Your task to perform on an android device: open app "ColorNote Notepad Notes" Image 0: 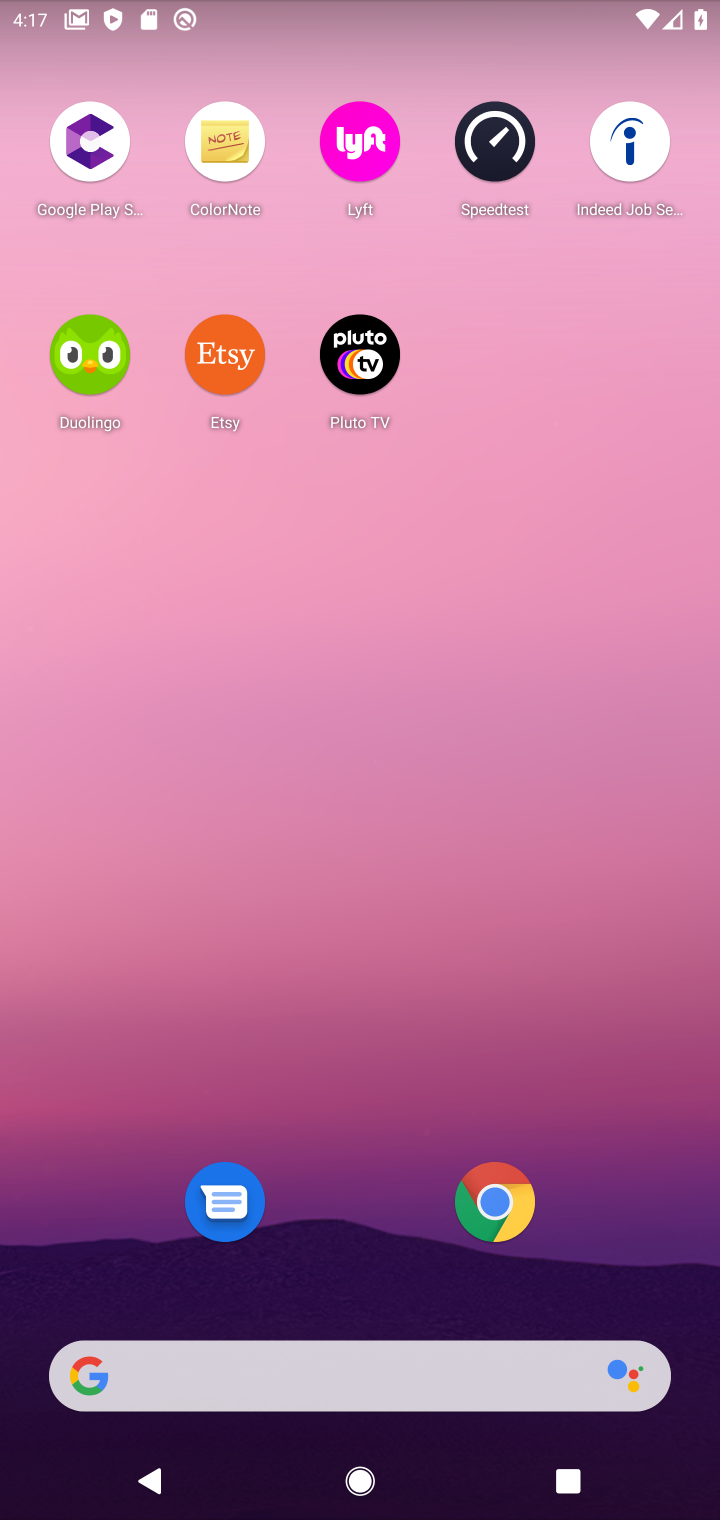
Step 0: drag from (331, 1197) to (441, 60)
Your task to perform on an android device: open app "ColorNote Notepad Notes" Image 1: 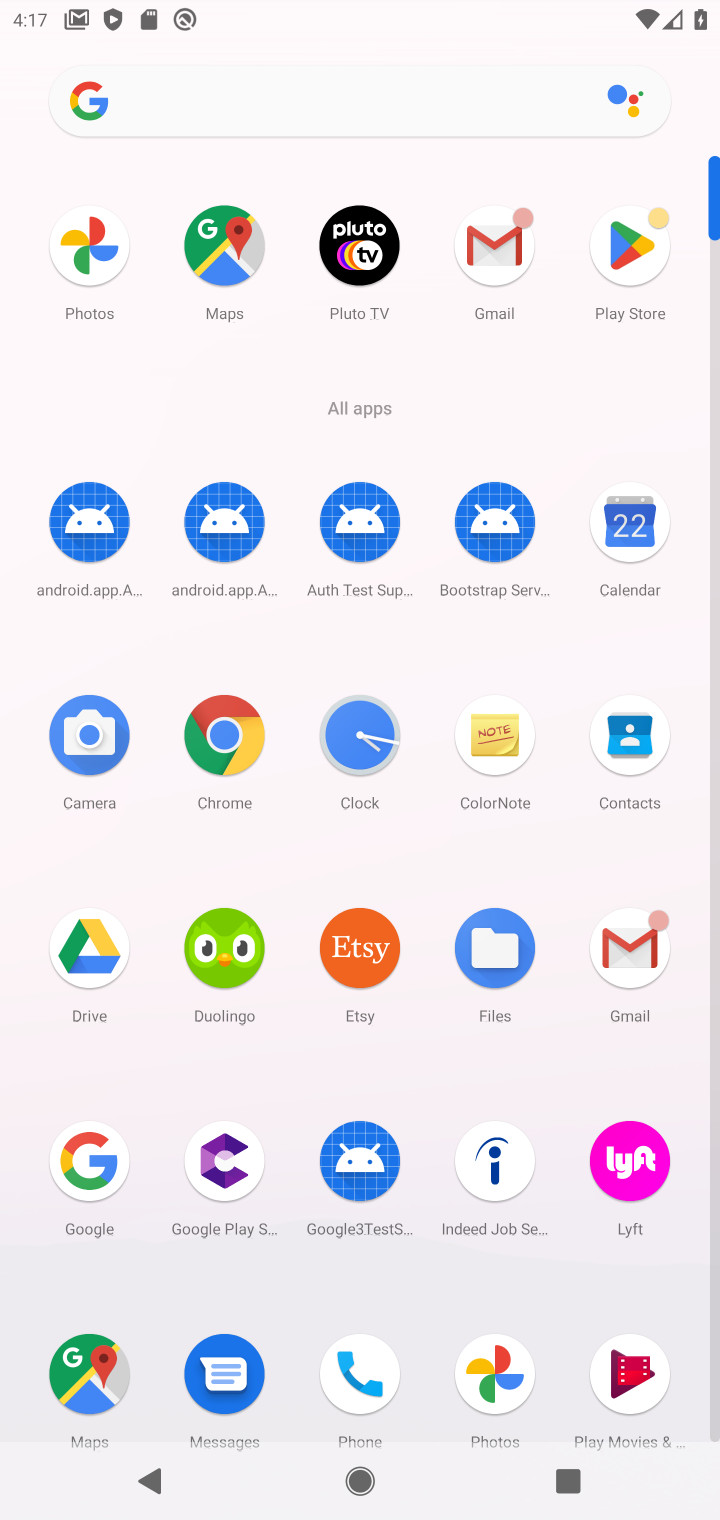
Step 1: click (636, 260)
Your task to perform on an android device: open app "ColorNote Notepad Notes" Image 2: 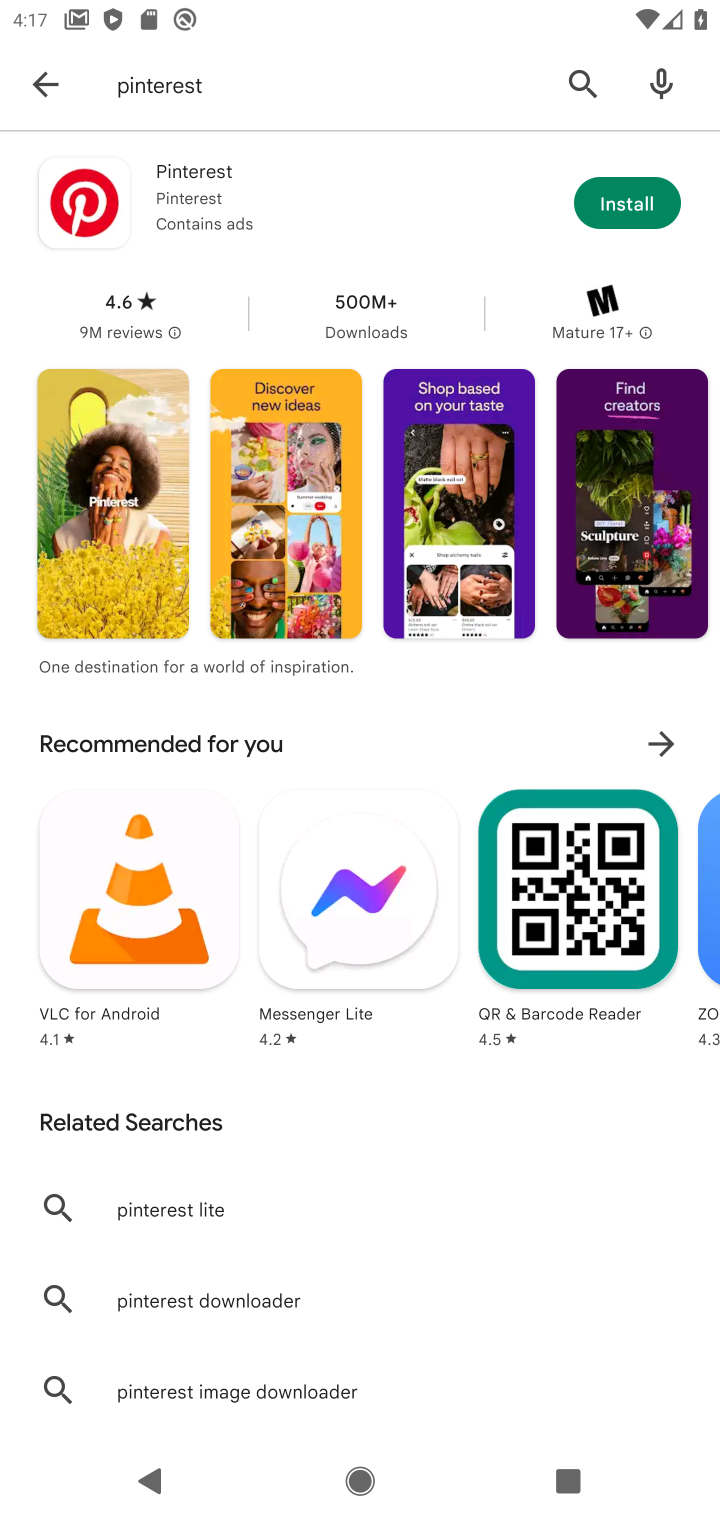
Step 2: click (249, 39)
Your task to perform on an android device: open app "ColorNote Notepad Notes" Image 3: 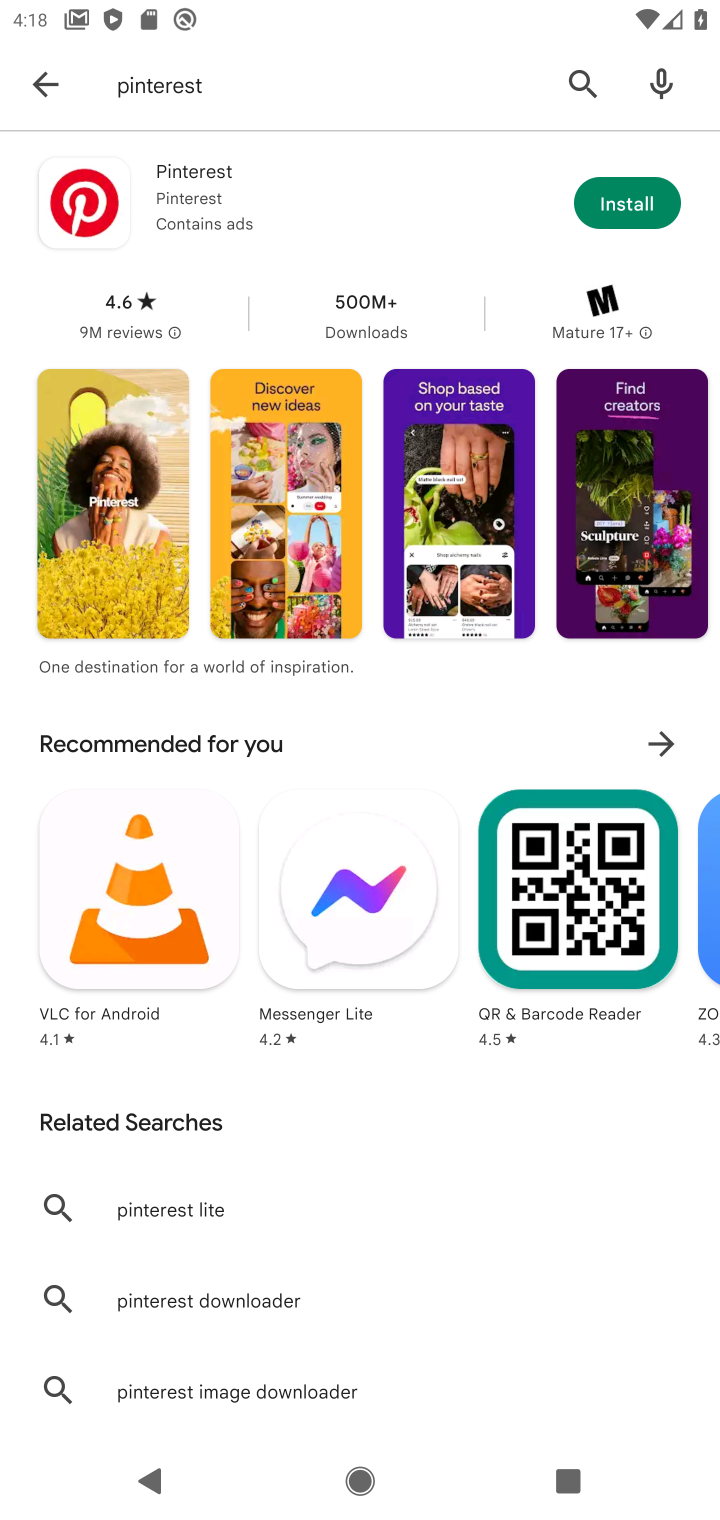
Step 3: click (234, 83)
Your task to perform on an android device: open app "ColorNote Notepad Notes" Image 4: 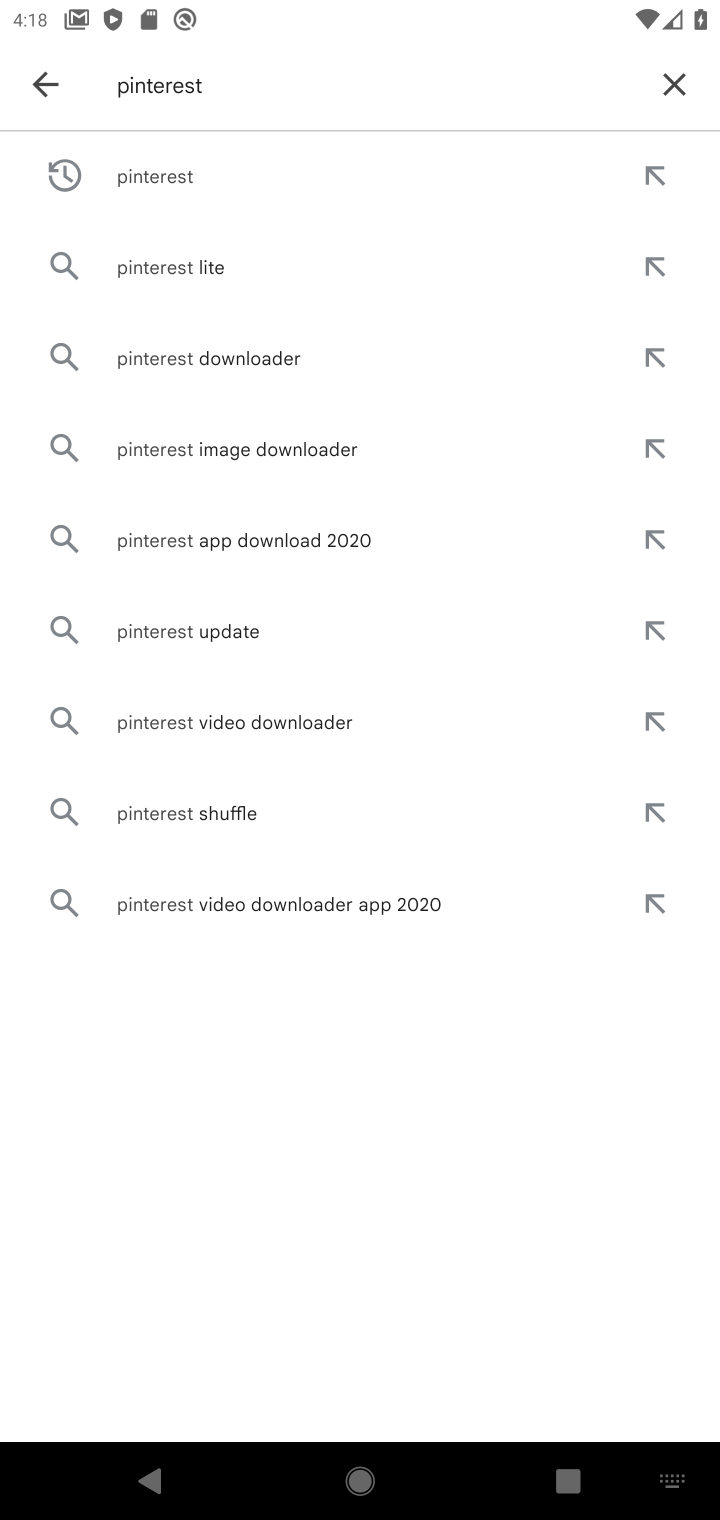
Step 4: click (684, 77)
Your task to perform on an android device: open app "ColorNote Notepad Notes" Image 5: 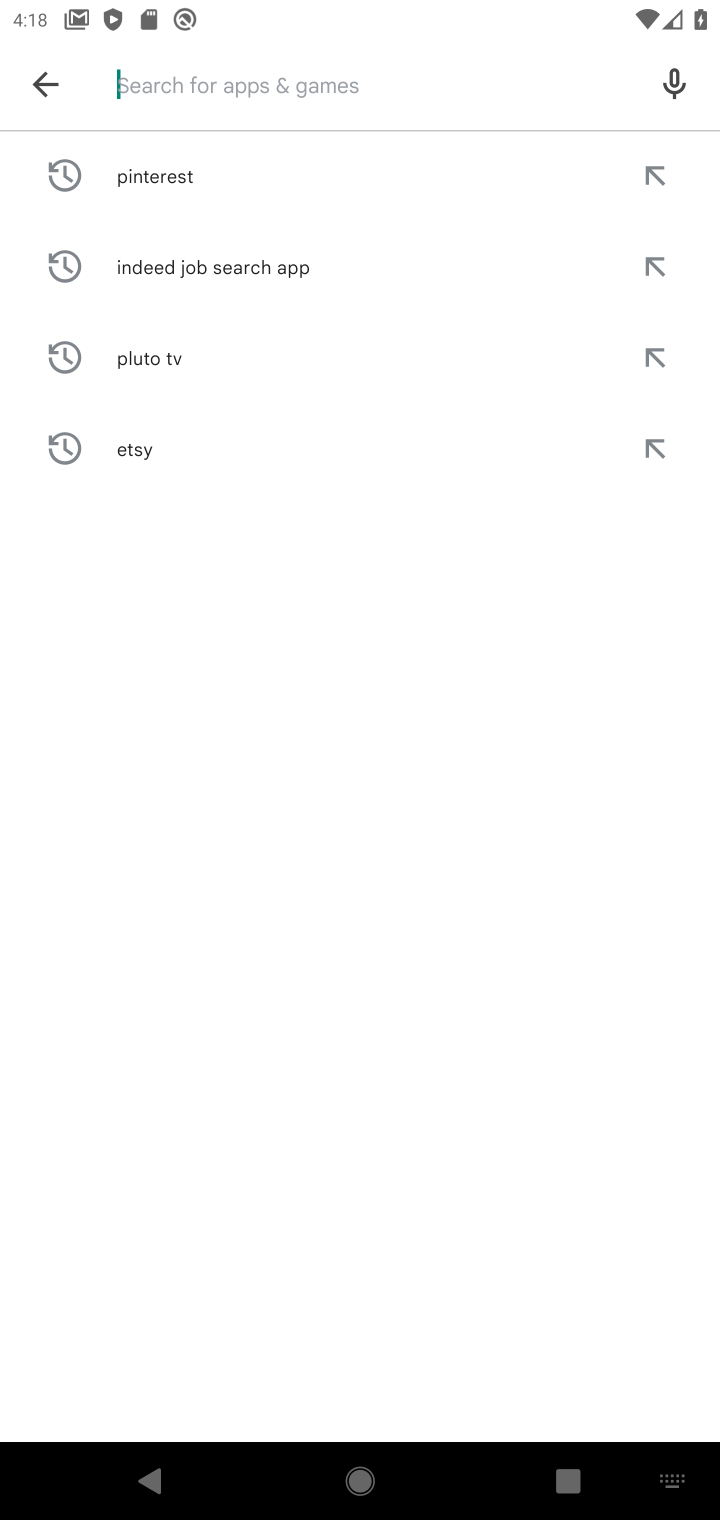
Step 5: type "colornote notepad"
Your task to perform on an android device: open app "ColorNote Notepad Notes" Image 6: 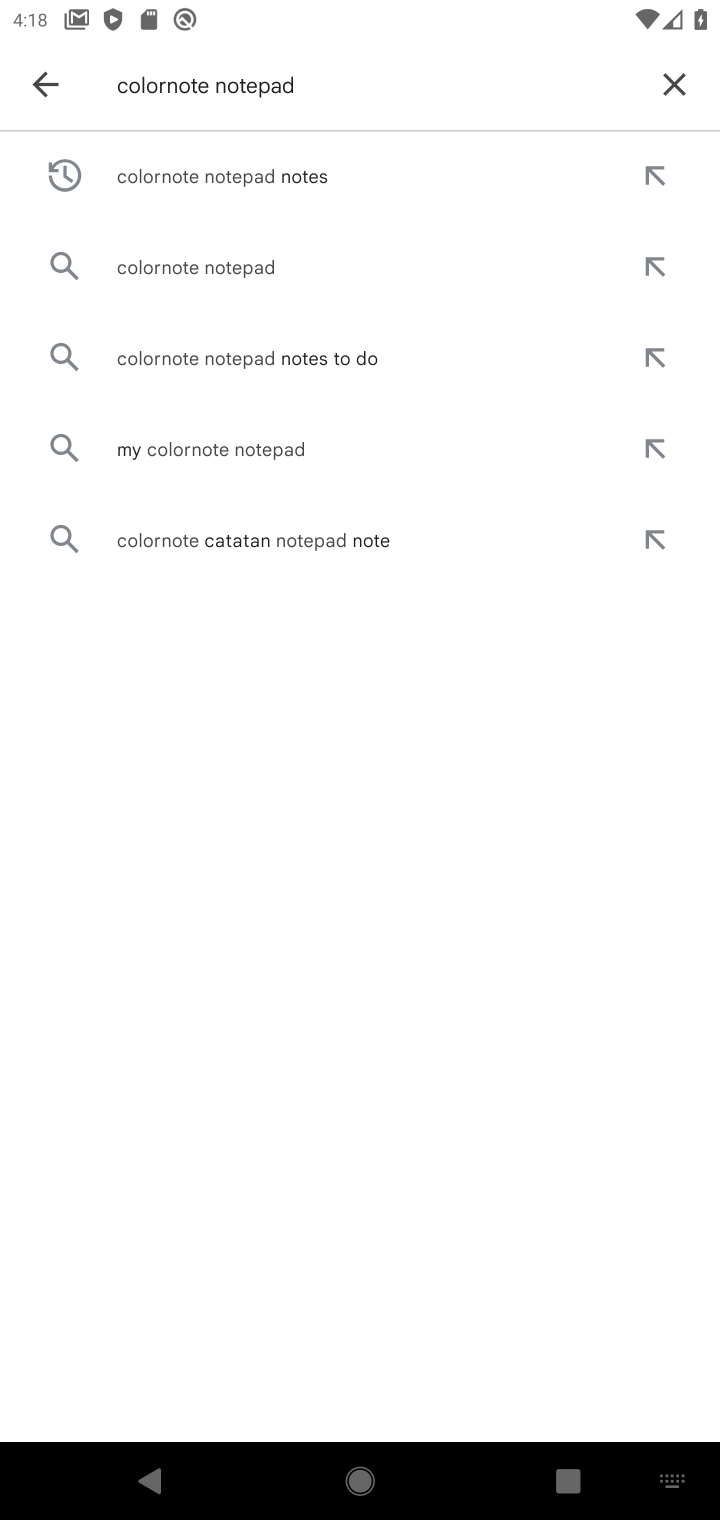
Step 6: click (319, 184)
Your task to perform on an android device: open app "ColorNote Notepad Notes" Image 7: 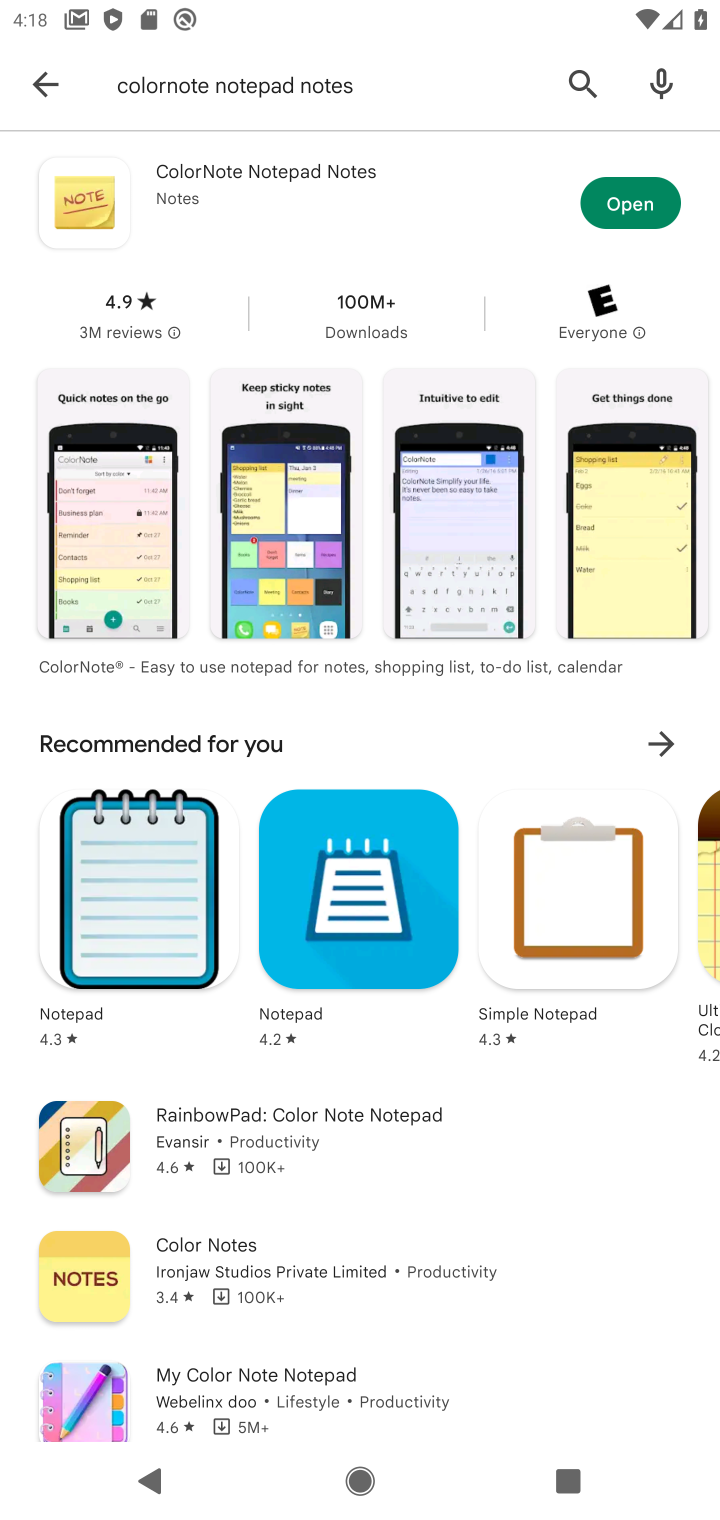
Step 7: click (639, 195)
Your task to perform on an android device: open app "ColorNote Notepad Notes" Image 8: 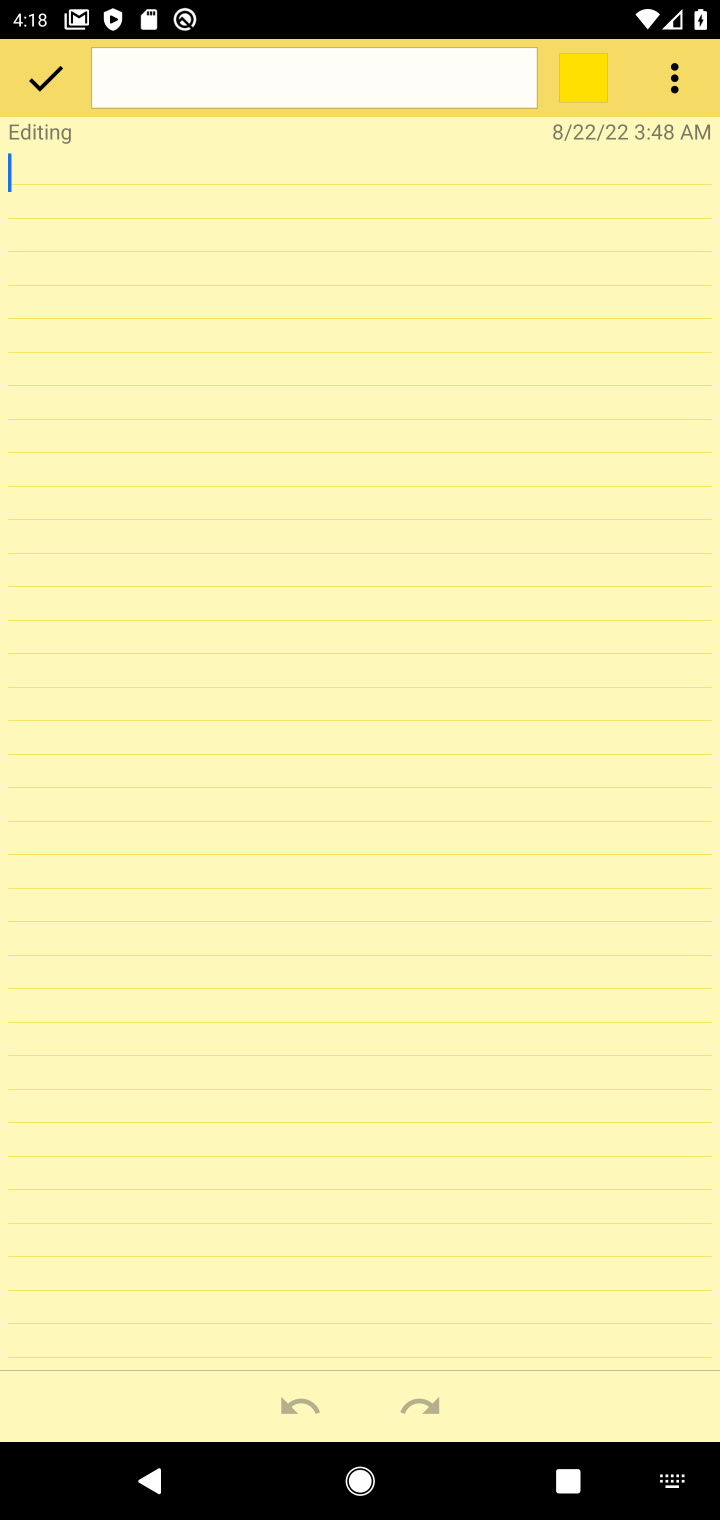
Step 8: task complete